Your task to perform on an android device: delete browsing data in the chrome app Image 0: 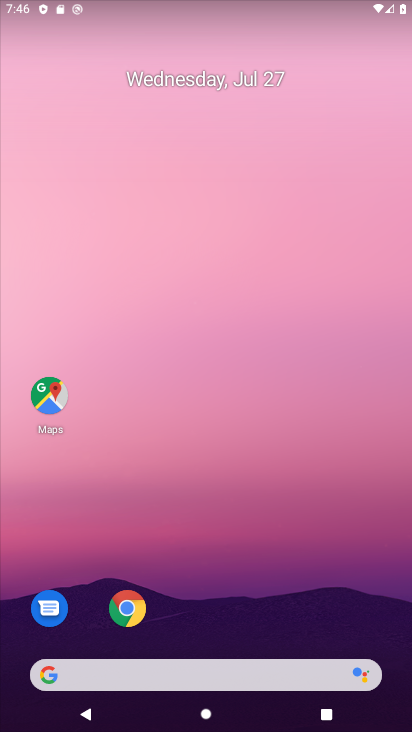
Step 0: click (114, 607)
Your task to perform on an android device: delete browsing data in the chrome app Image 1: 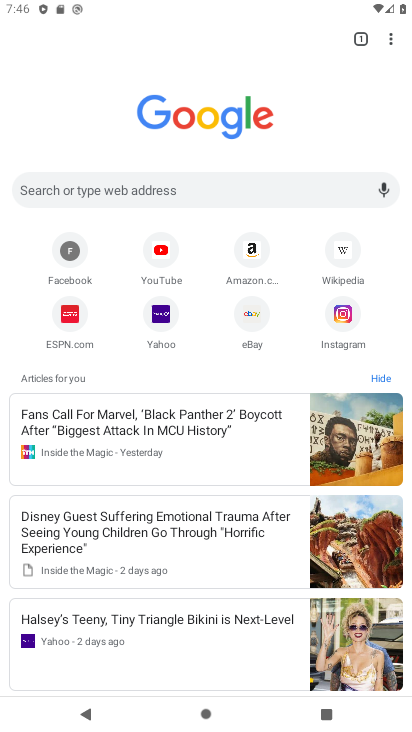
Step 1: click (389, 38)
Your task to perform on an android device: delete browsing data in the chrome app Image 2: 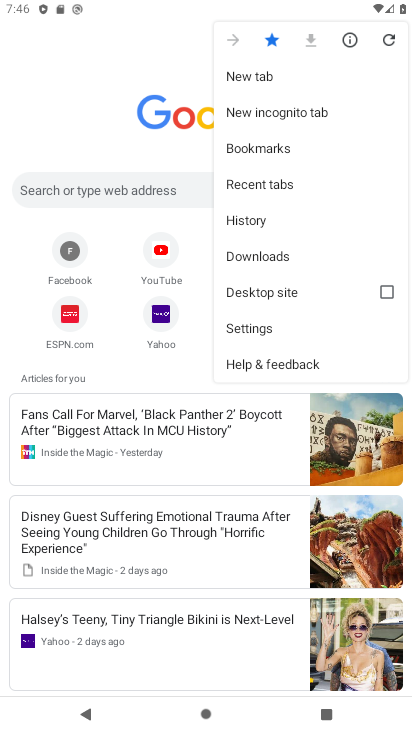
Step 2: click (258, 219)
Your task to perform on an android device: delete browsing data in the chrome app Image 3: 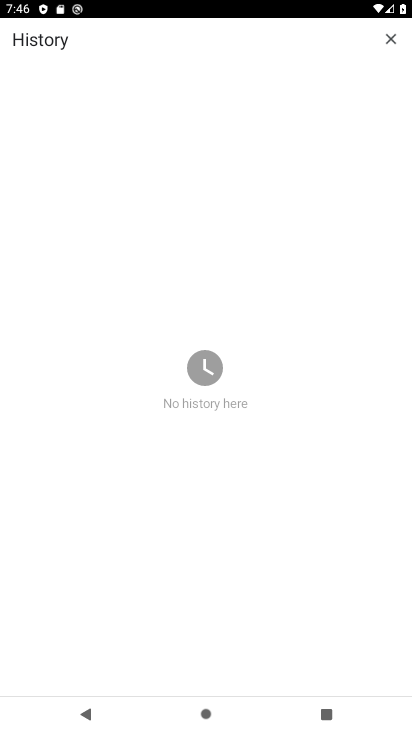
Step 3: click (388, 37)
Your task to perform on an android device: delete browsing data in the chrome app Image 4: 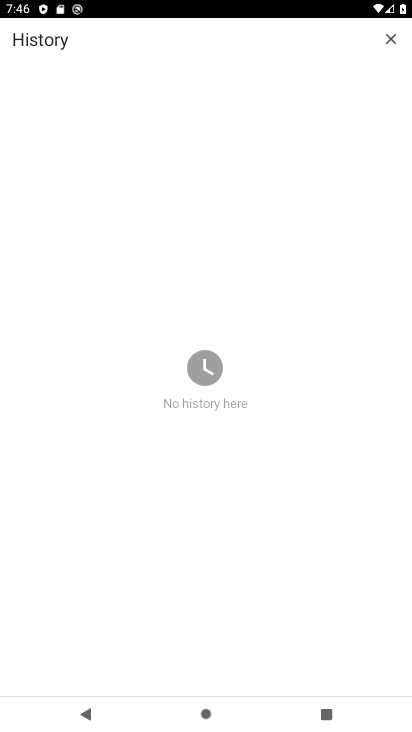
Step 4: task complete